Your task to perform on an android device: see sites visited before in the chrome app Image 0: 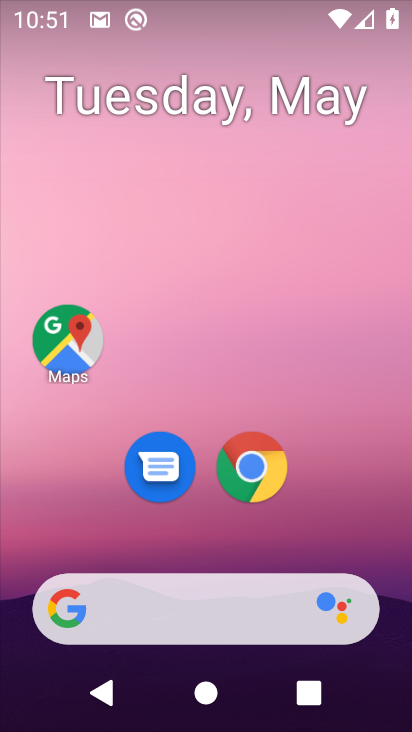
Step 0: drag from (204, 531) to (215, 155)
Your task to perform on an android device: see sites visited before in the chrome app Image 1: 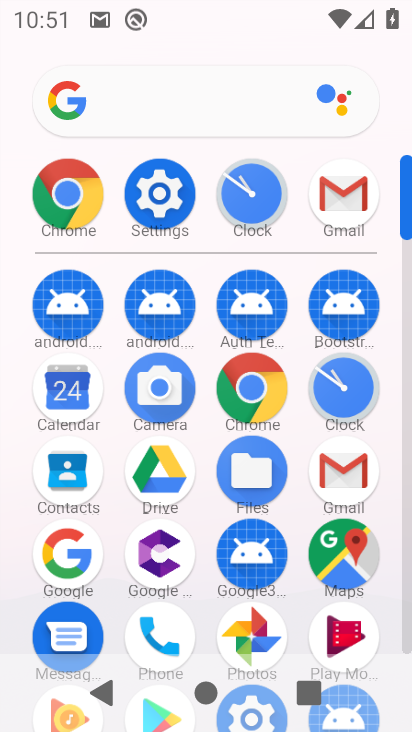
Step 1: click (249, 387)
Your task to perform on an android device: see sites visited before in the chrome app Image 2: 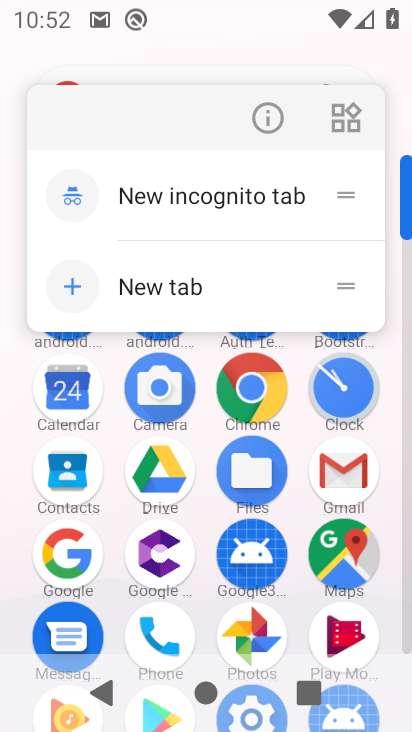
Step 2: click (274, 105)
Your task to perform on an android device: see sites visited before in the chrome app Image 3: 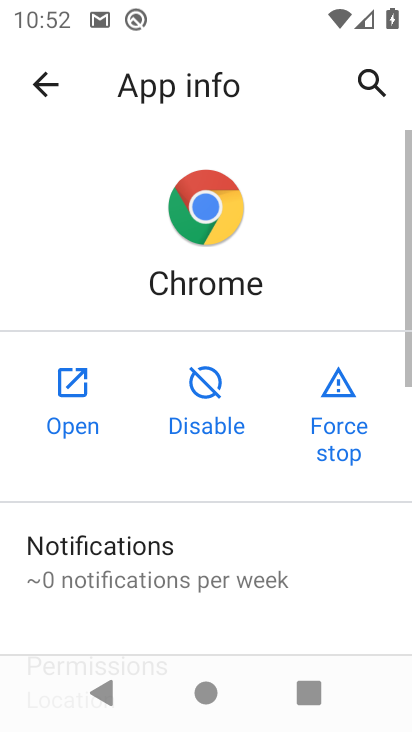
Step 3: click (73, 360)
Your task to perform on an android device: see sites visited before in the chrome app Image 4: 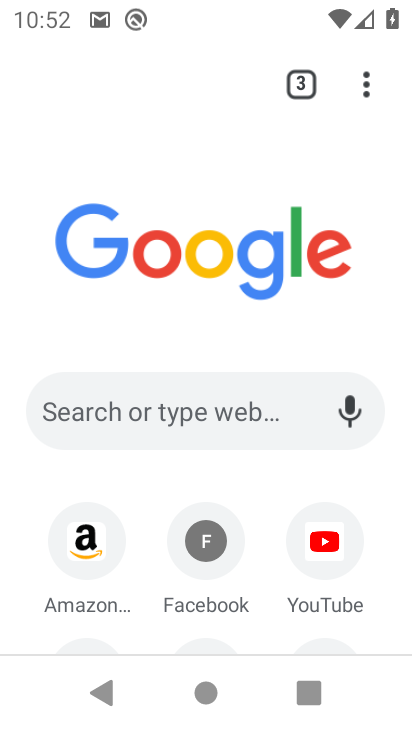
Step 4: click (374, 97)
Your task to perform on an android device: see sites visited before in the chrome app Image 5: 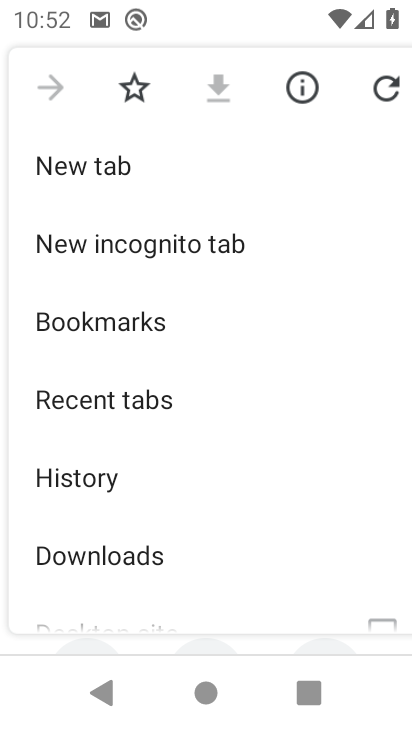
Step 5: click (139, 344)
Your task to perform on an android device: see sites visited before in the chrome app Image 6: 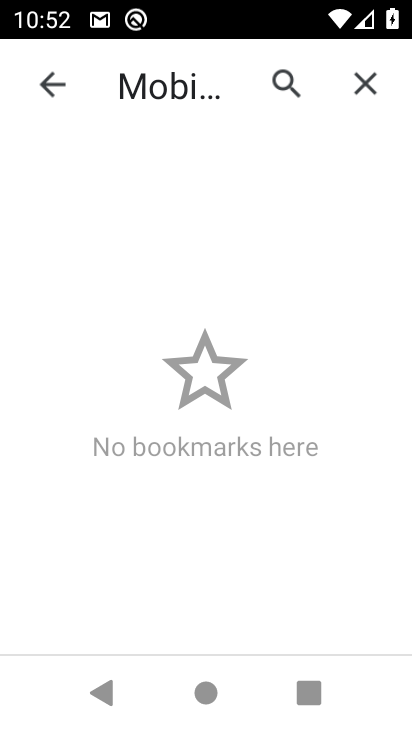
Step 6: task complete